Your task to perform on an android device: open the mobile data screen to see how much data has been used Image 0: 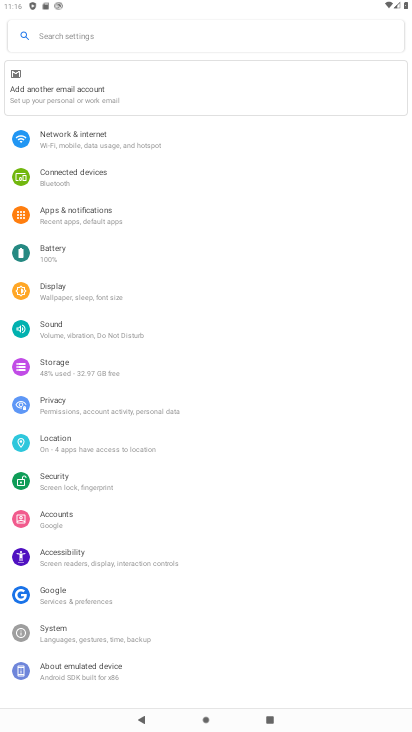
Step 0: press home button
Your task to perform on an android device: open the mobile data screen to see how much data has been used Image 1: 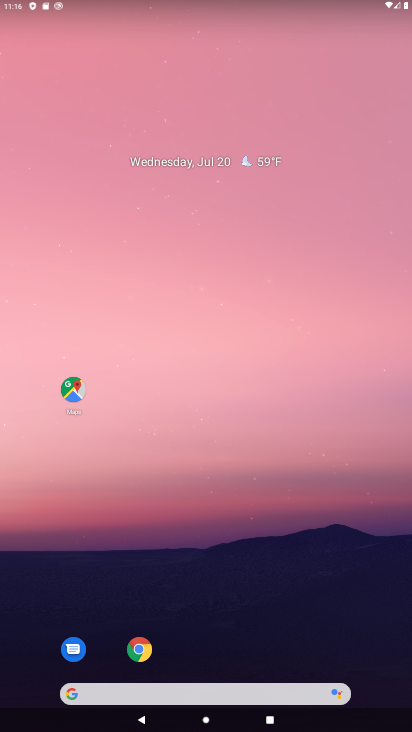
Step 1: drag from (186, 662) to (215, 120)
Your task to perform on an android device: open the mobile data screen to see how much data has been used Image 2: 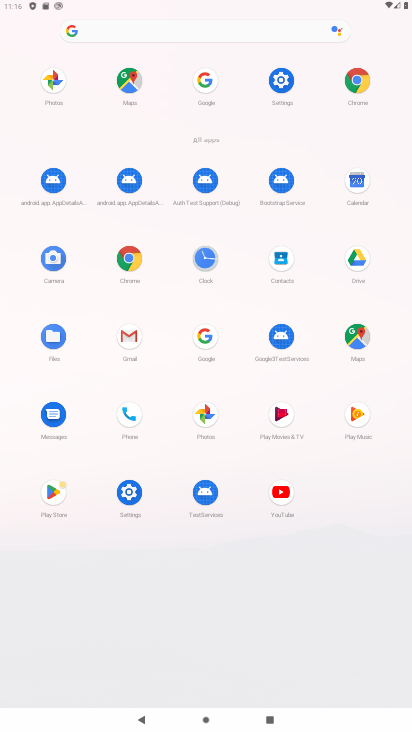
Step 2: click (282, 81)
Your task to perform on an android device: open the mobile data screen to see how much data has been used Image 3: 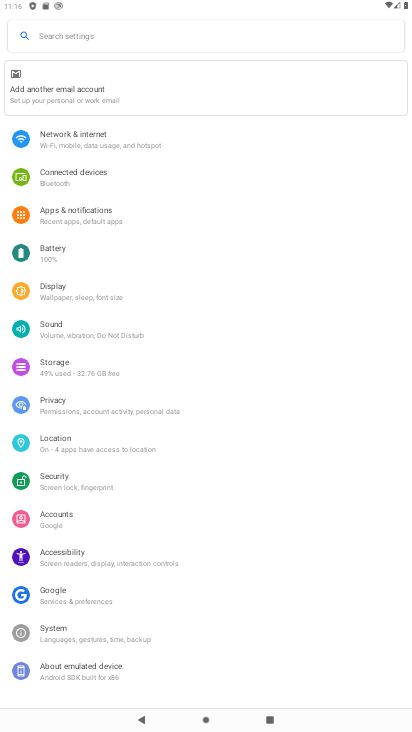
Step 3: click (123, 140)
Your task to perform on an android device: open the mobile data screen to see how much data has been used Image 4: 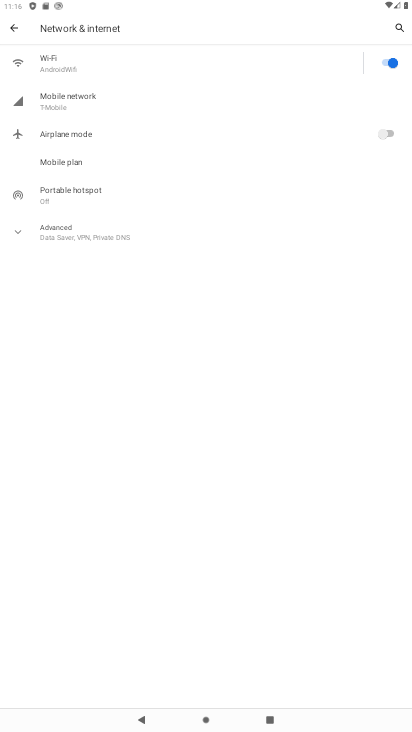
Step 4: click (91, 101)
Your task to perform on an android device: open the mobile data screen to see how much data has been used Image 5: 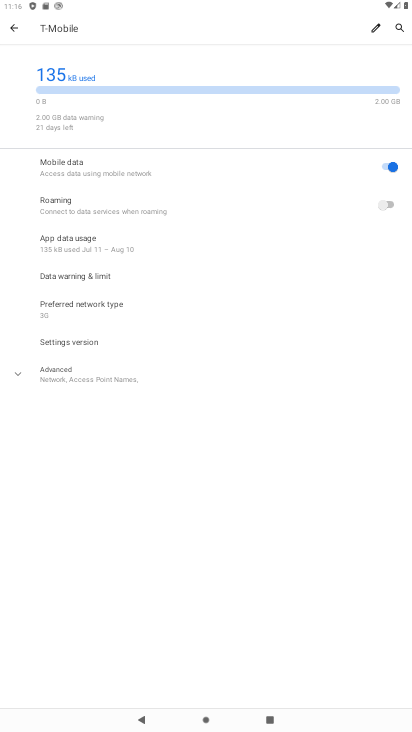
Step 5: task complete